Your task to perform on an android device: see tabs open on other devices in the chrome app Image 0: 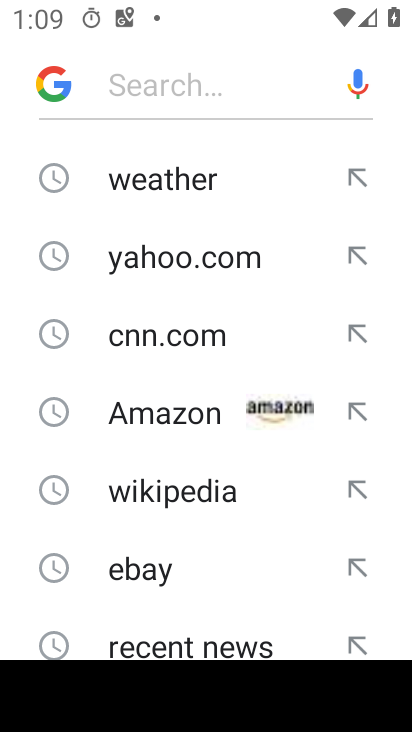
Step 0: press home button
Your task to perform on an android device: see tabs open on other devices in the chrome app Image 1: 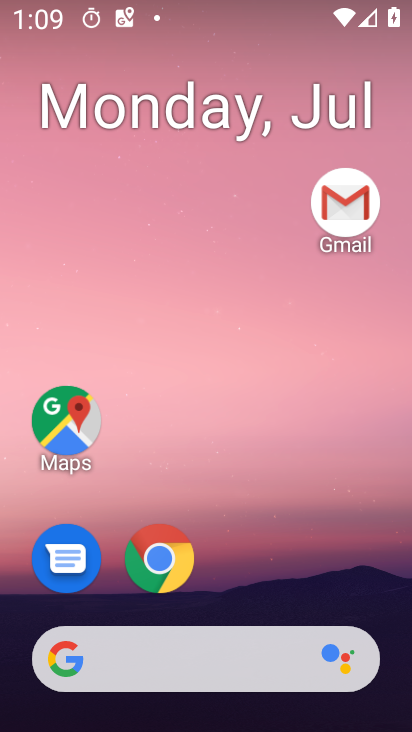
Step 1: drag from (365, 575) to (372, 93)
Your task to perform on an android device: see tabs open on other devices in the chrome app Image 2: 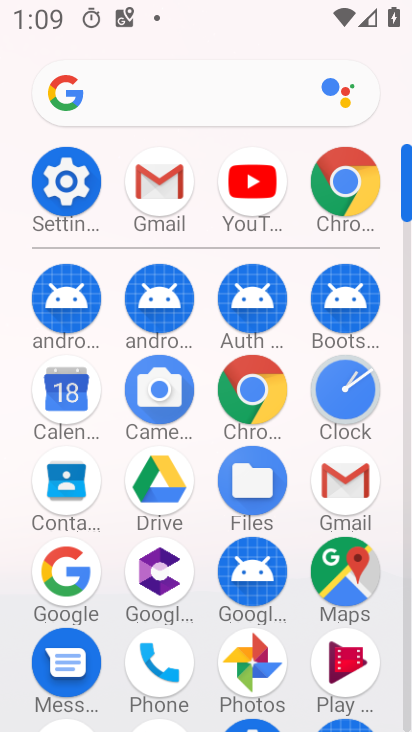
Step 2: click (345, 193)
Your task to perform on an android device: see tabs open on other devices in the chrome app Image 3: 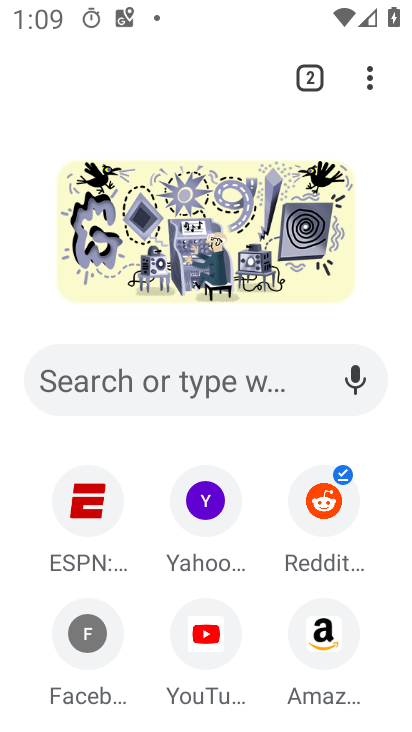
Step 3: click (367, 86)
Your task to perform on an android device: see tabs open on other devices in the chrome app Image 4: 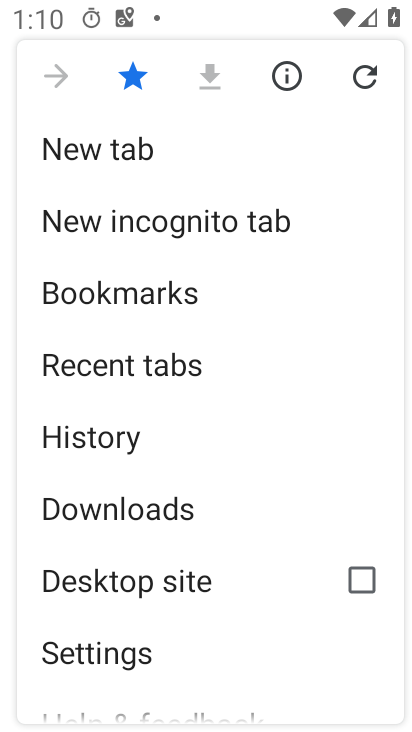
Step 4: click (187, 372)
Your task to perform on an android device: see tabs open on other devices in the chrome app Image 5: 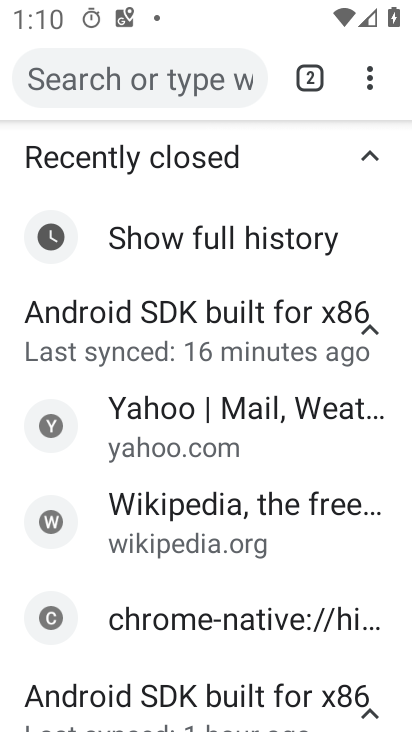
Step 5: click (308, 85)
Your task to perform on an android device: see tabs open on other devices in the chrome app Image 6: 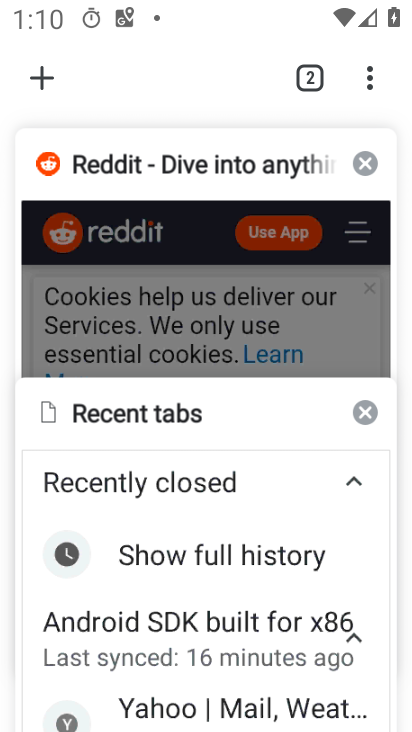
Step 6: task complete